Your task to perform on an android device: Open settings Image 0: 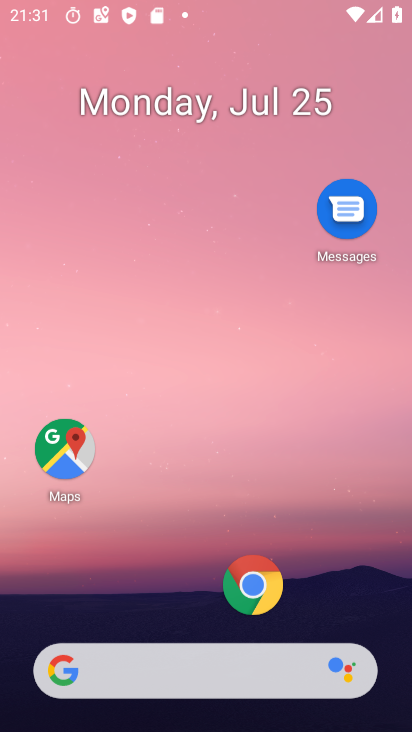
Step 0: press home button
Your task to perform on an android device: Open settings Image 1: 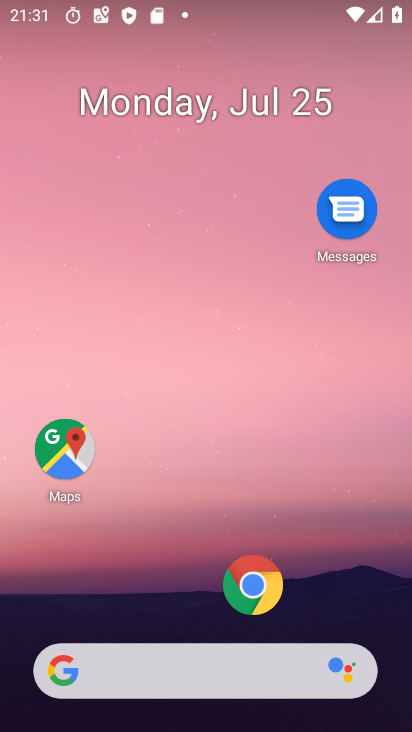
Step 1: drag from (230, 675) to (309, 172)
Your task to perform on an android device: Open settings Image 2: 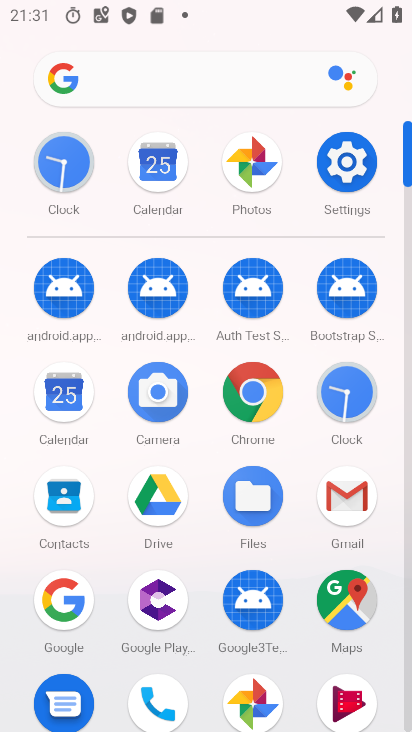
Step 2: click (349, 172)
Your task to perform on an android device: Open settings Image 3: 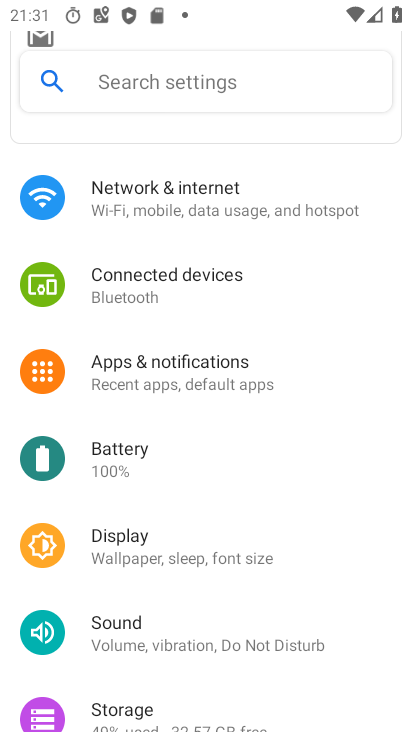
Step 3: task complete